Your task to perform on an android device: turn off data saver in the chrome app Image 0: 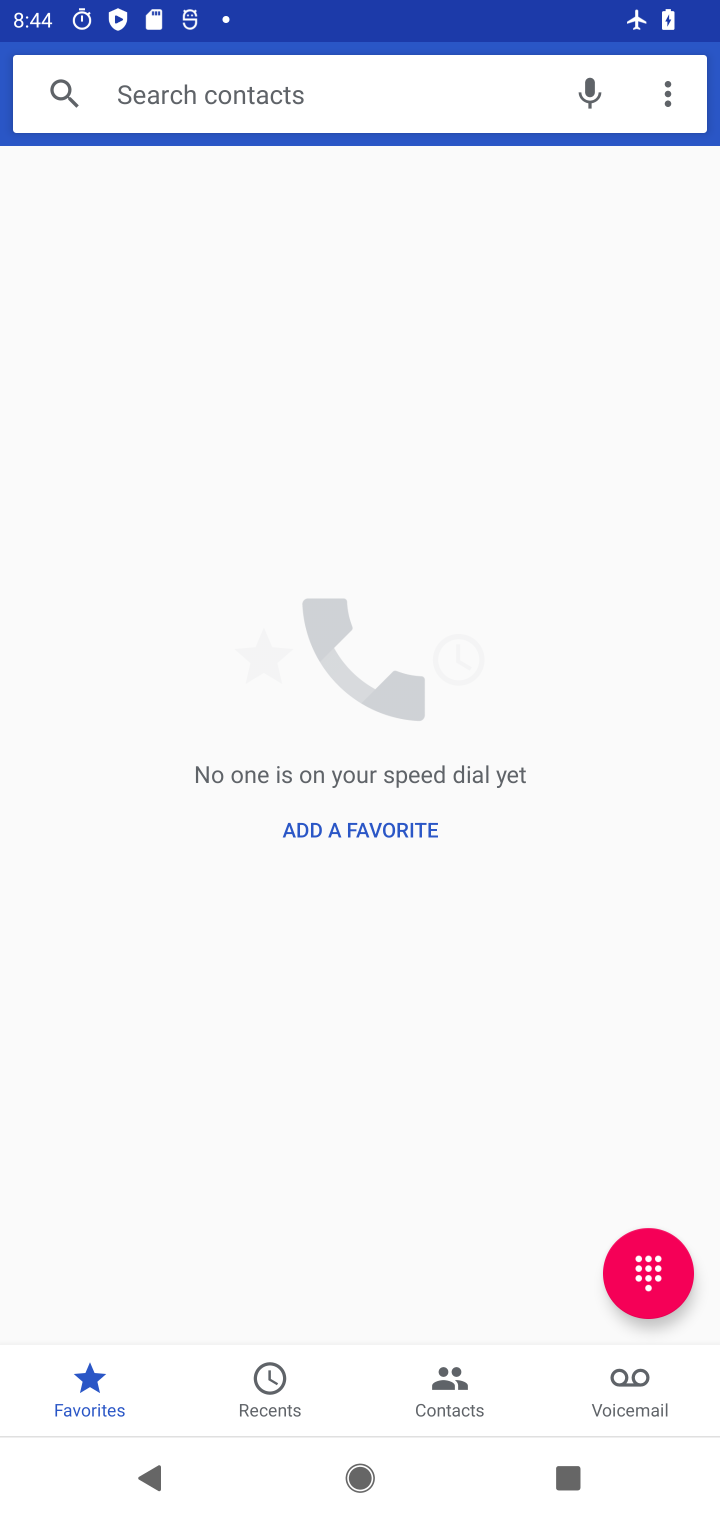
Step 0: press home button
Your task to perform on an android device: turn off data saver in the chrome app Image 1: 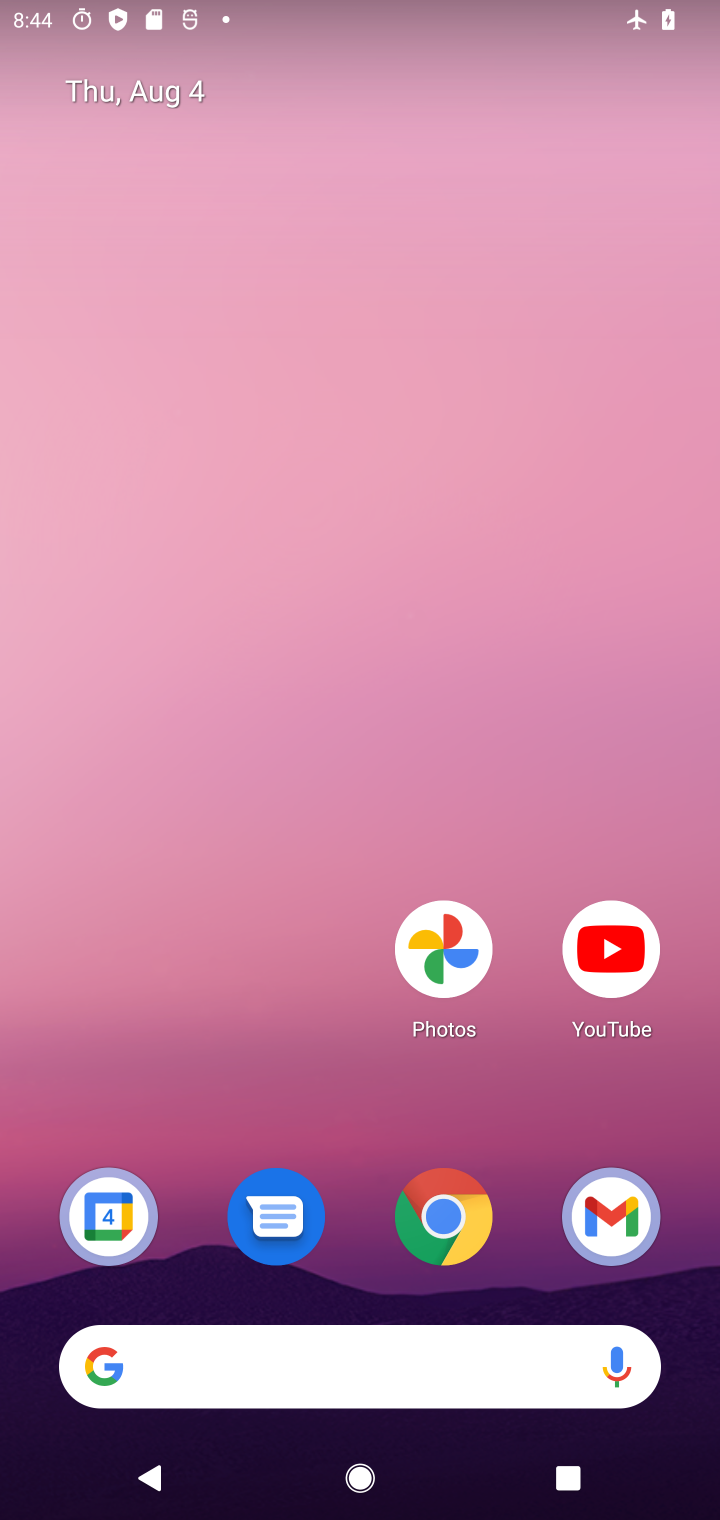
Step 1: click (428, 1226)
Your task to perform on an android device: turn off data saver in the chrome app Image 2: 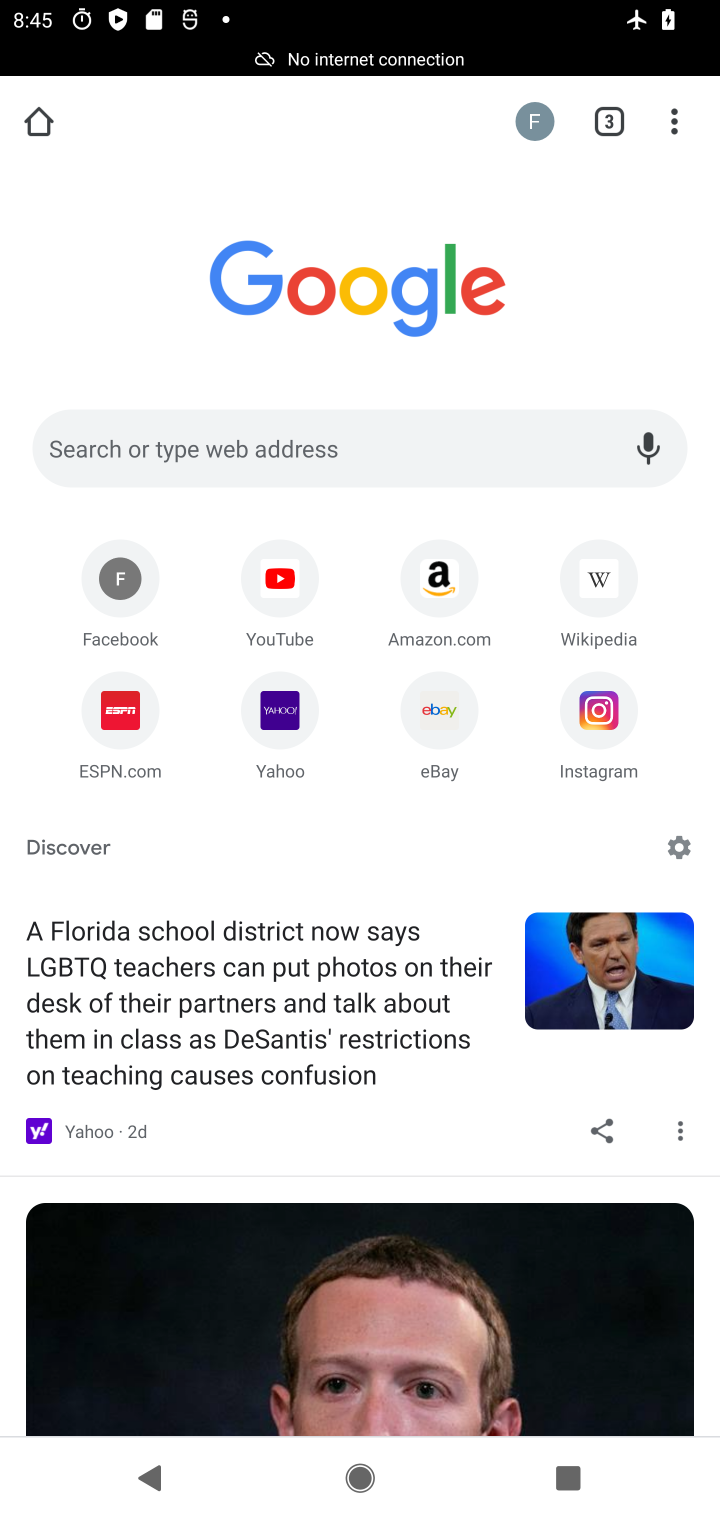
Step 2: click (674, 133)
Your task to perform on an android device: turn off data saver in the chrome app Image 3: 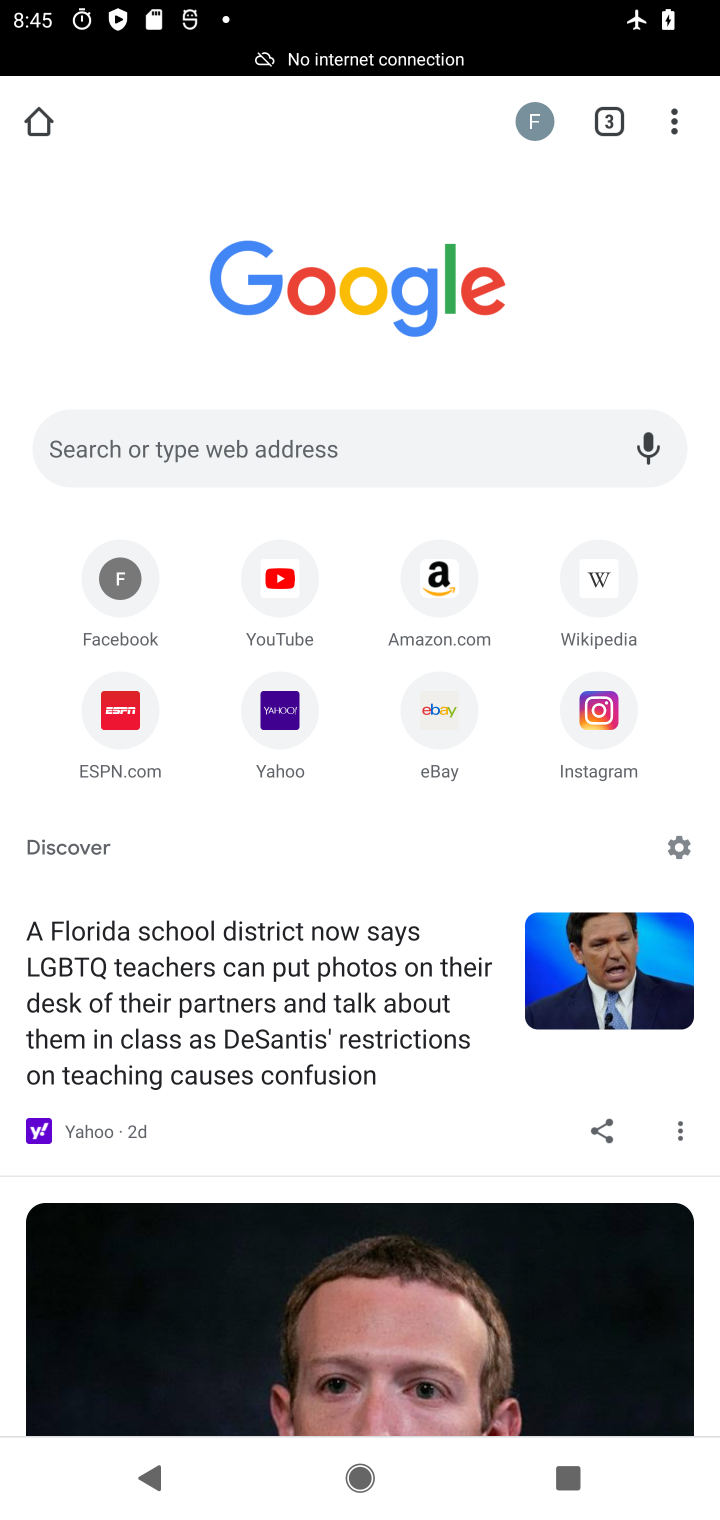
Step 3: click (673, 134)
Your task to perform on an android device: turn off data saver in the chrome app Image 4: 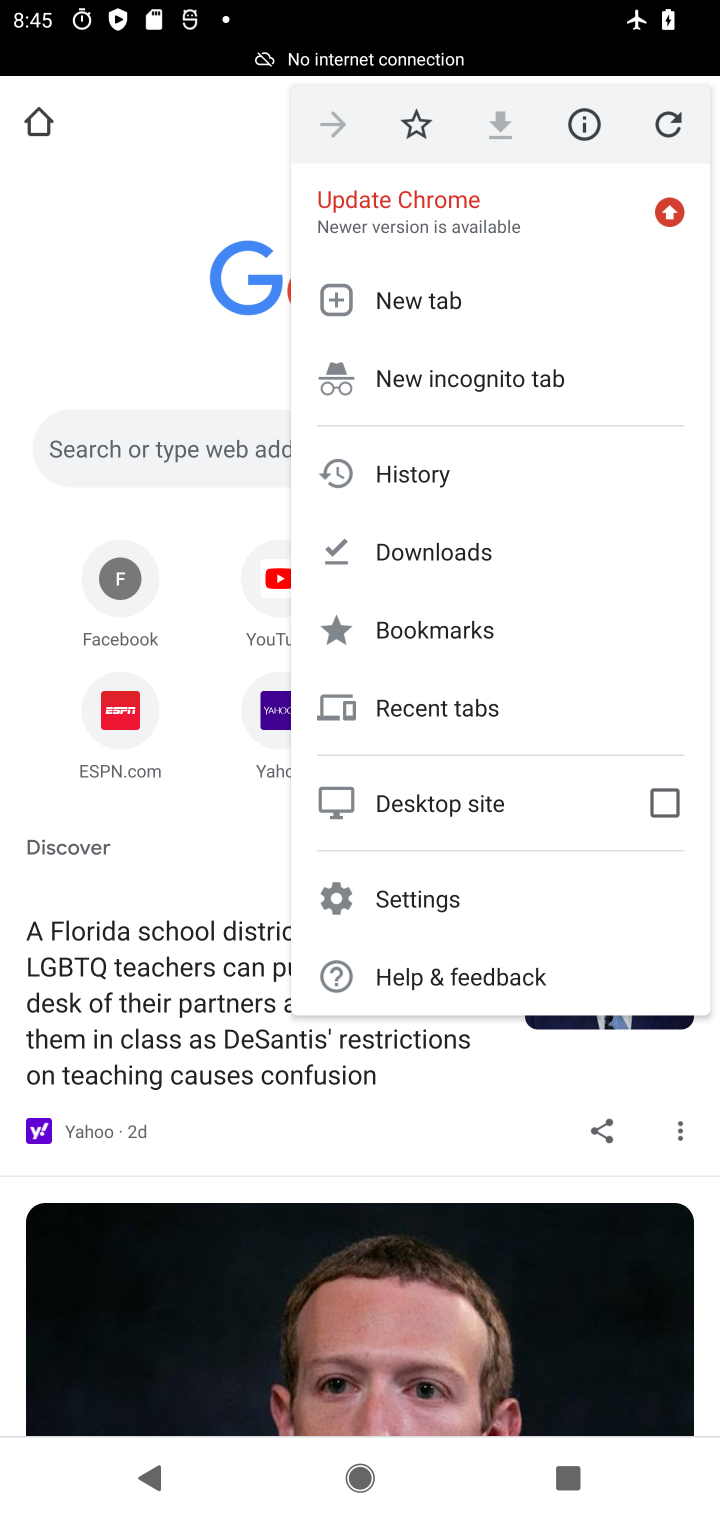
Step 4: click (398, 904)
Your task to perform on an android device: turn off data saver in the chrome app Image 5: 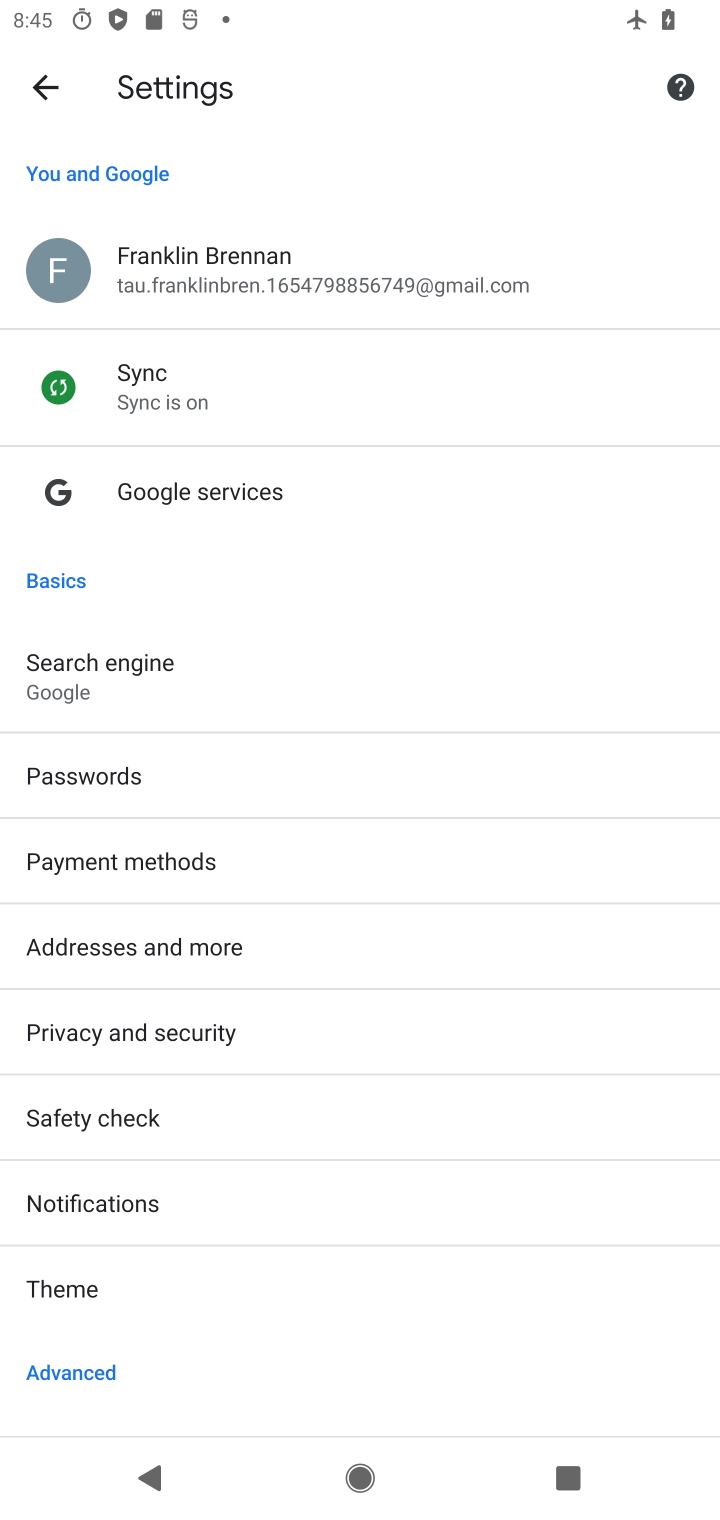
Step 5: drag from (132, 1330) to (179, 507)
Your task to perform on an android device: turn off data saver in the chrome app Image 6: 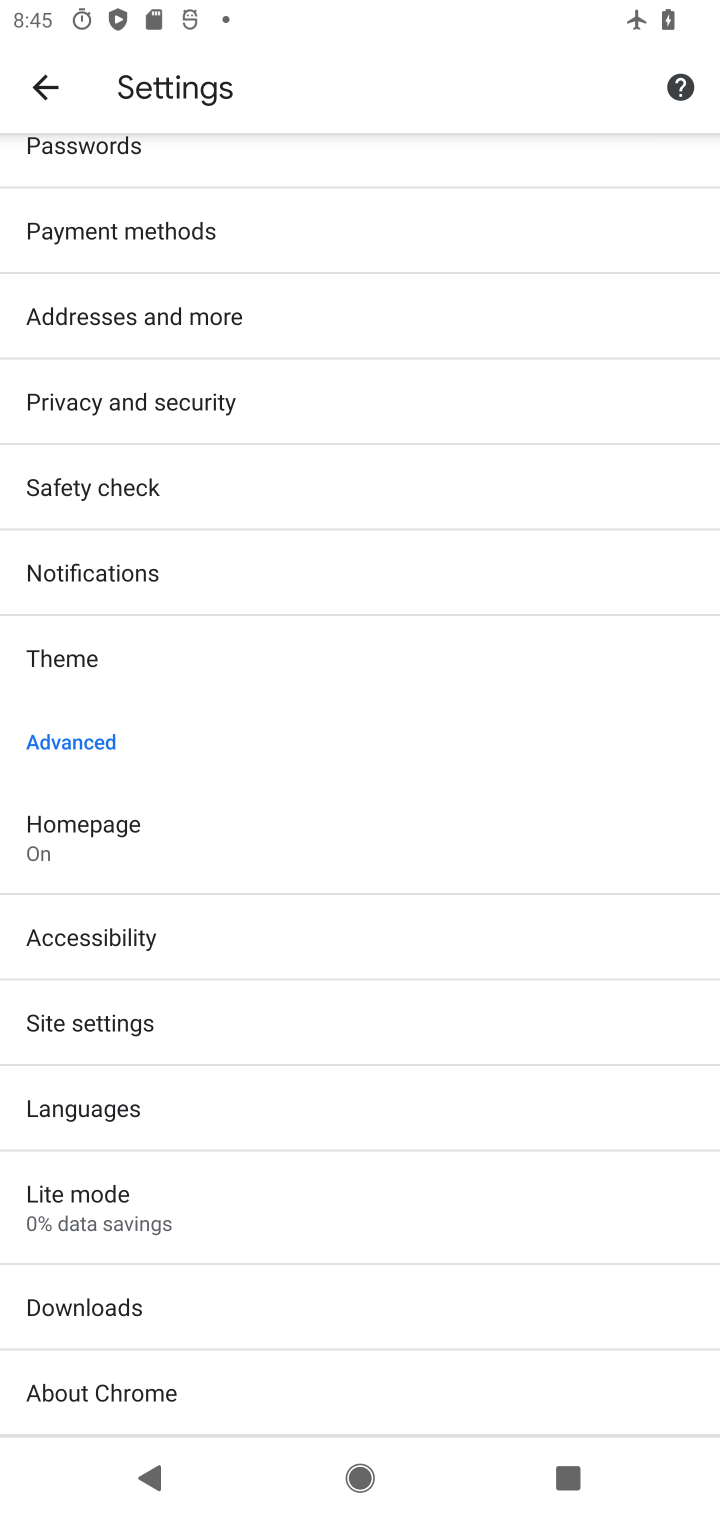
Step 6: click (95, 1217)
Your task to perform on an android device: turn off data saver in the chrome app Image 7: 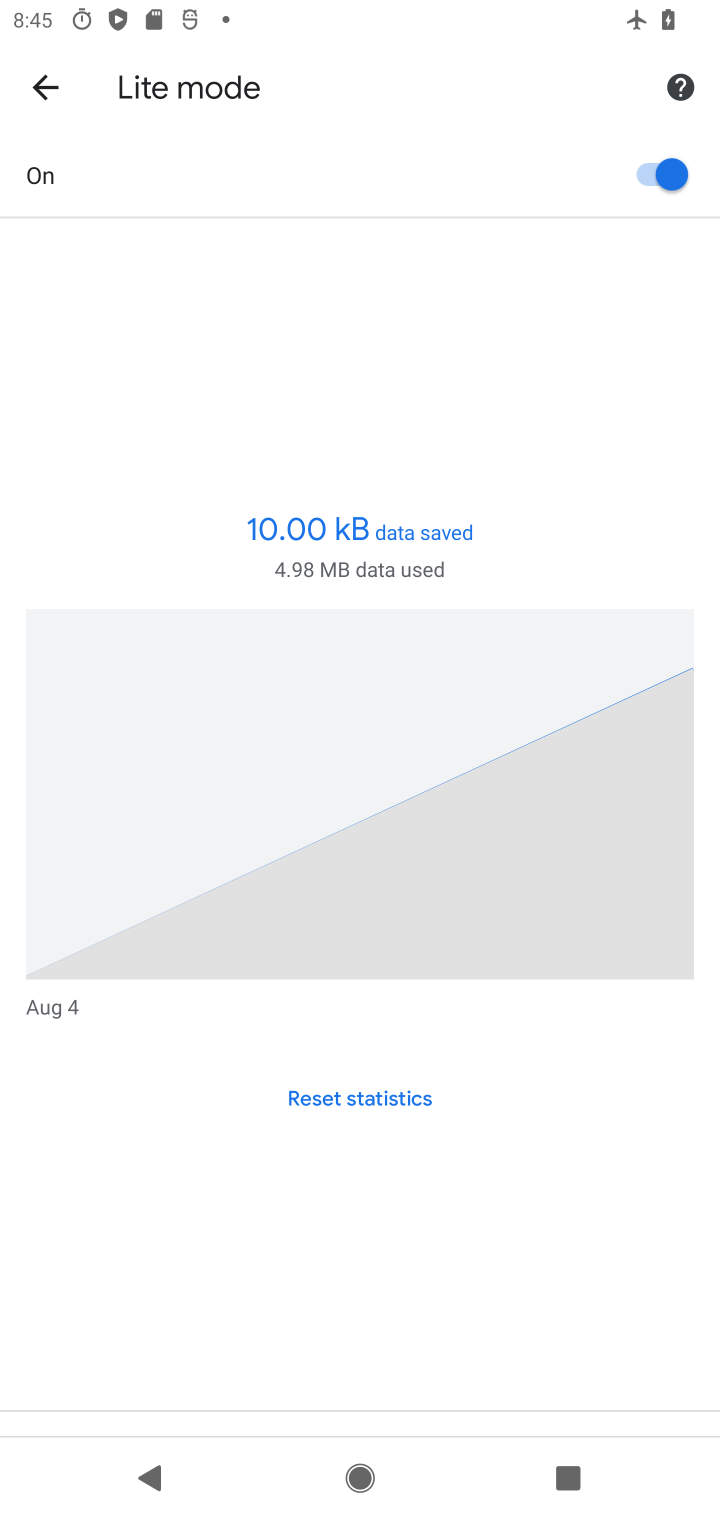
Step 7: click (647, 169)
Your task to perform on an android device: turn off data saver in the chrome app Image 8: 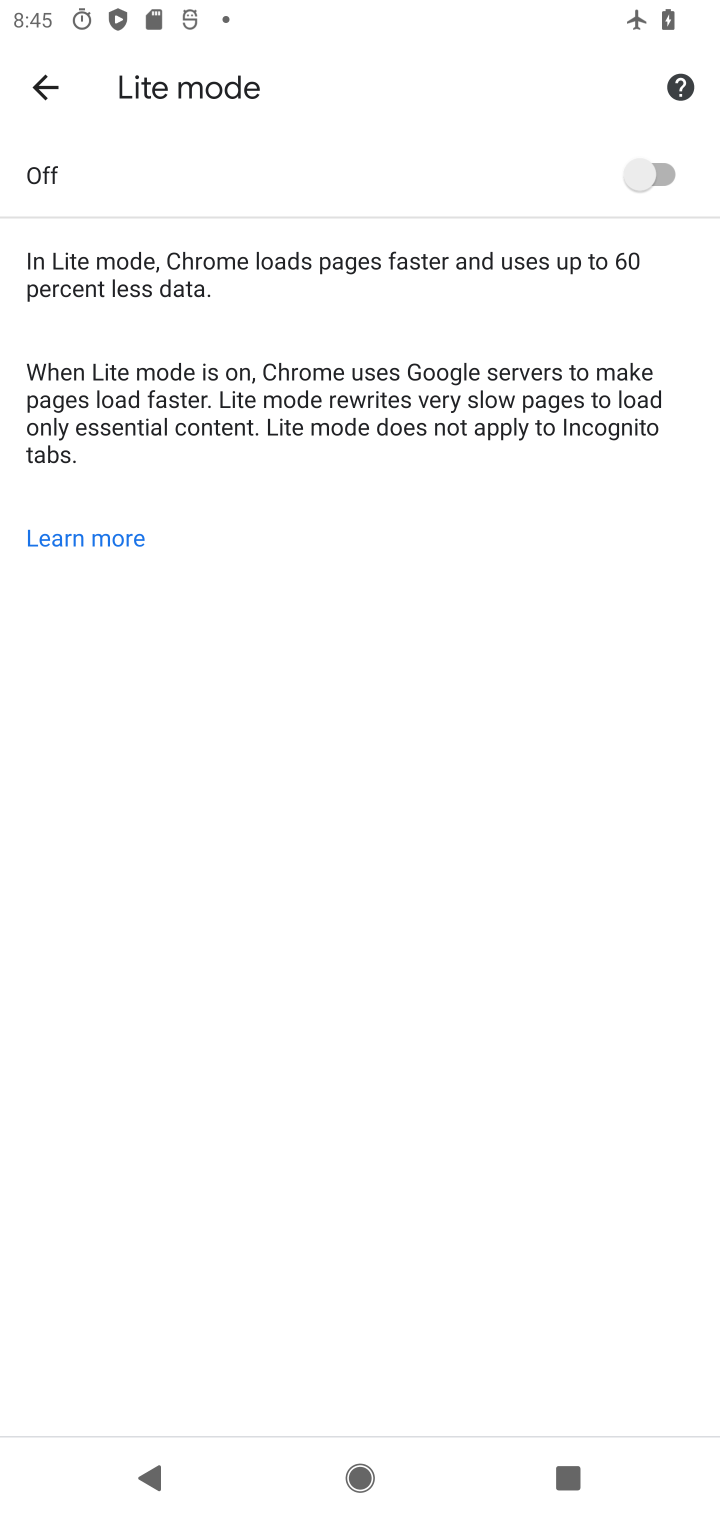
Step 8: task complete